Your task to perform on an android device: turn notification dots off Image 0: 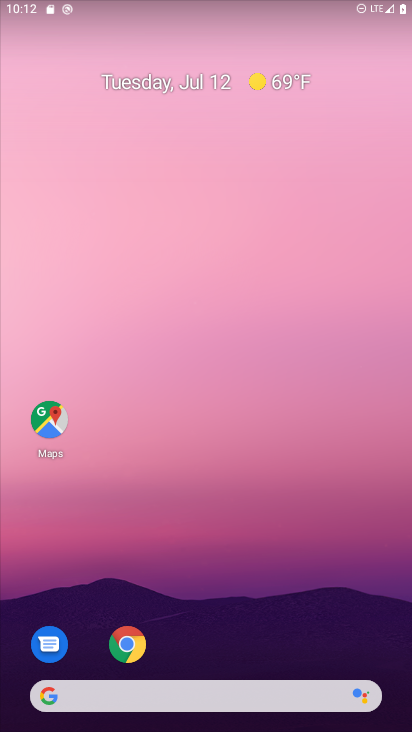
Step 0: press home button
Your task to perform on an android device: turn notification dots off Image 1: 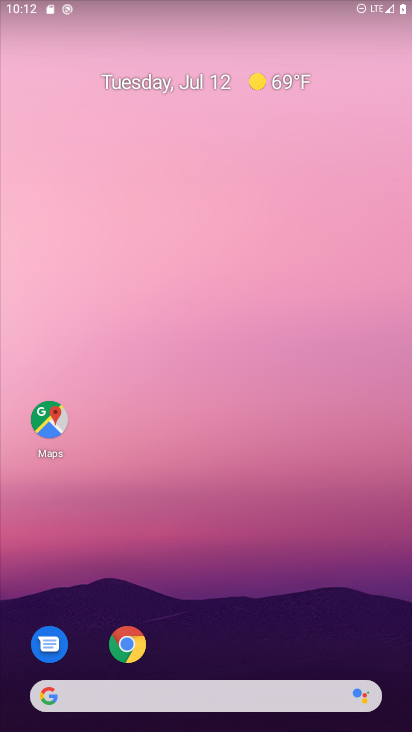
Step 1: drag from (224, 574) to (302, 67)
Your task to perform on an android device: turn notification dots off Image 2: 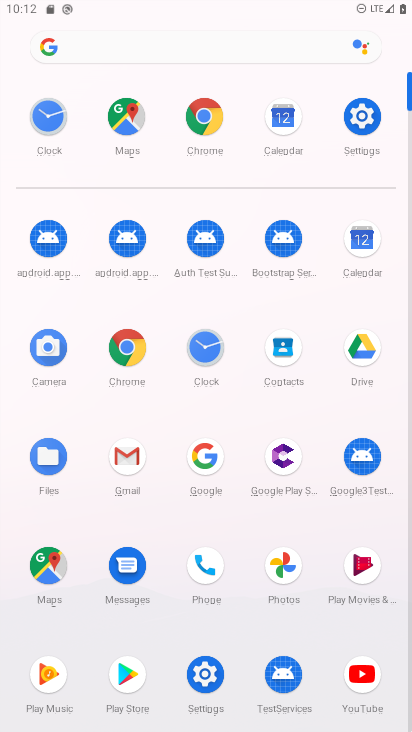
Step 2: click (362, 106)
Your task to perform on an android device: turn notification dots off Image 3: 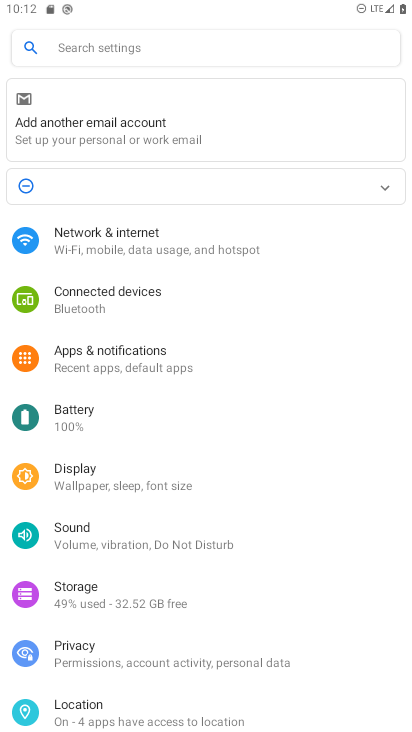
Step 3: click (179, 348)
Your task to perform on an android device: turn notification dots off Image 4: 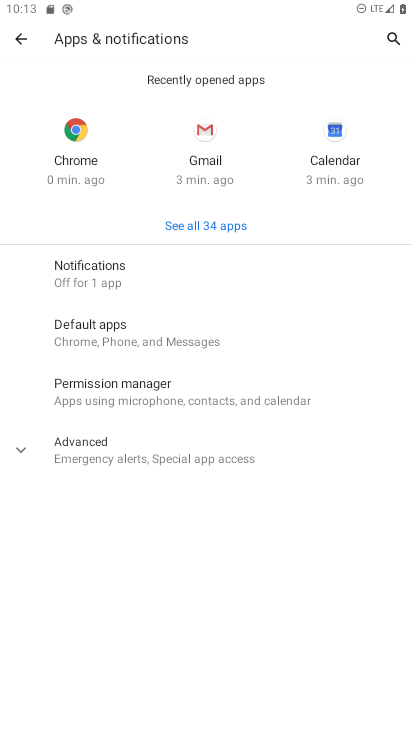
Step 4: click (126, 272)
Your task to perform on an android device: turn notification dots off Image 5: 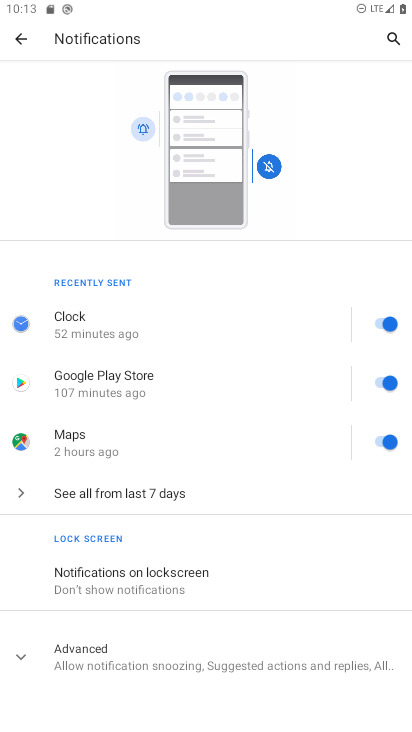
Step 5: click (103, 659)
Your task to perform on an android device: turn notification dots off Image 6: 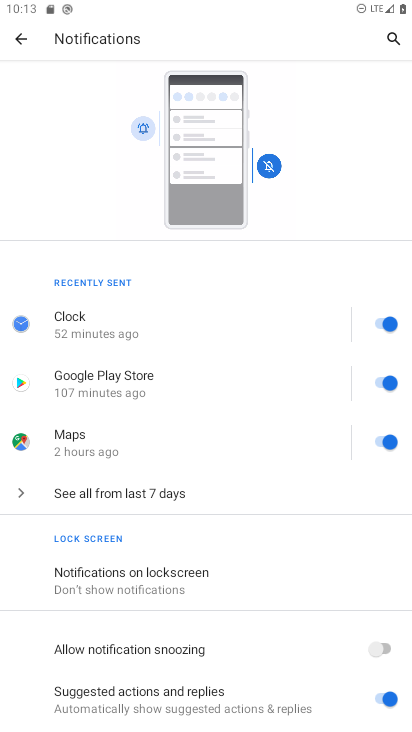
Step 6: task complete